Your task to perform on an android device: change notifications settings Image 0: 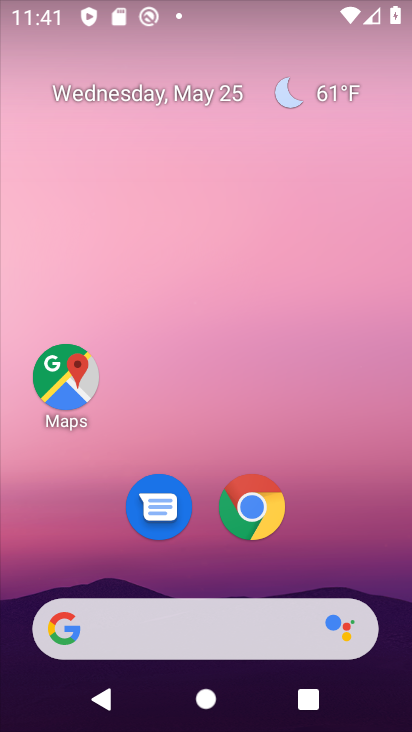
Step 0: drag from (372, 572) to (352, 189)
Your task to perform on an android device: change notifications settings Image 1: 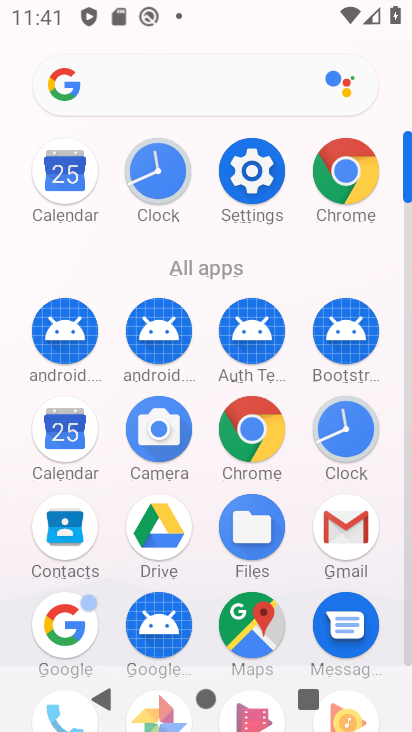
Step 1: click (274, 205)
Your task to perform on an android device: change notifications settings Image 2: 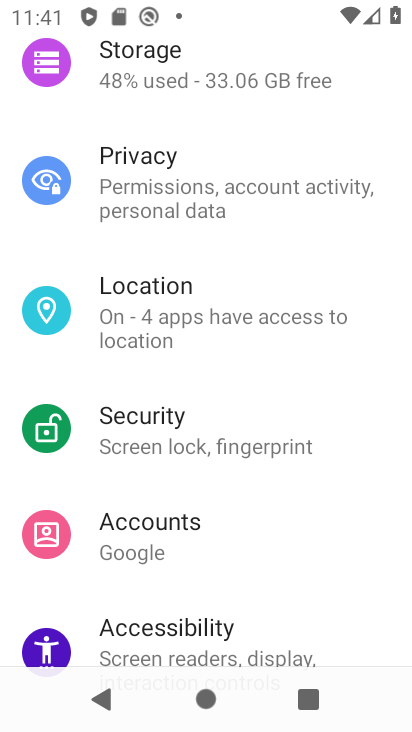
Step 2: drag from (245, 272) to (219, 664)
Your task to perform on an android device: change notifications settings Image 3: 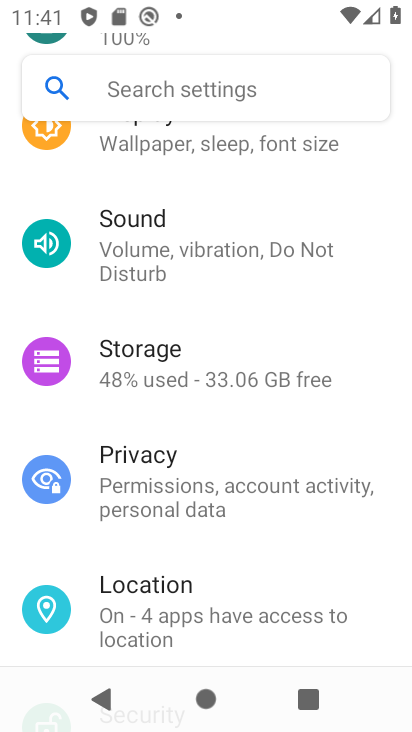
Step 3: drag from (221, 270) to (224, 493)
Your task to perform on an android device: change notifications settings Image 4: 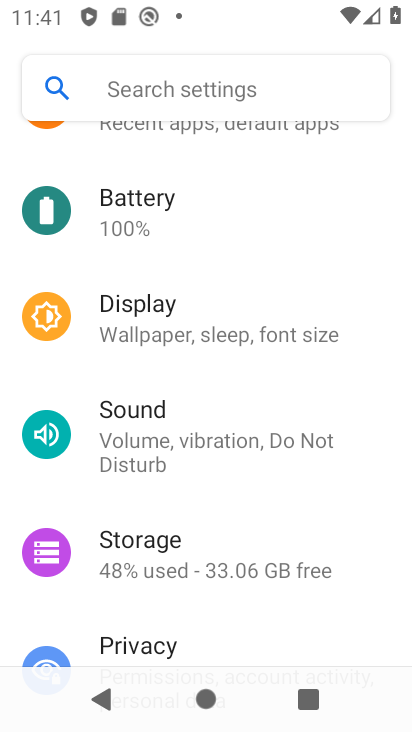
Step 4: drag from (220, 144) to (204, 416)
Your task to perform on an android device: change notifications settings Image 5: 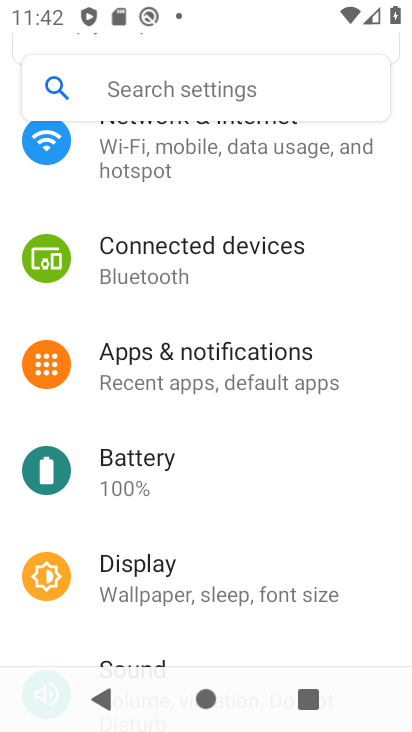
Step 5: click (227, 363)
Your task to perform on an android device: change notifications settings Image 6: 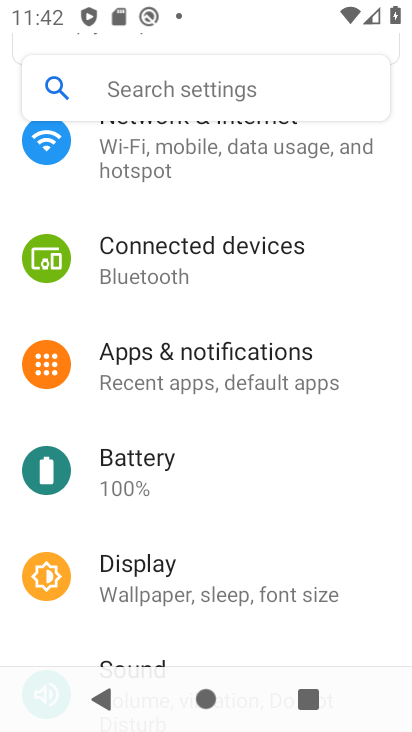
Step 6: task complete